Your task to perform on an android device: turn off notifications in google photos Image 0: 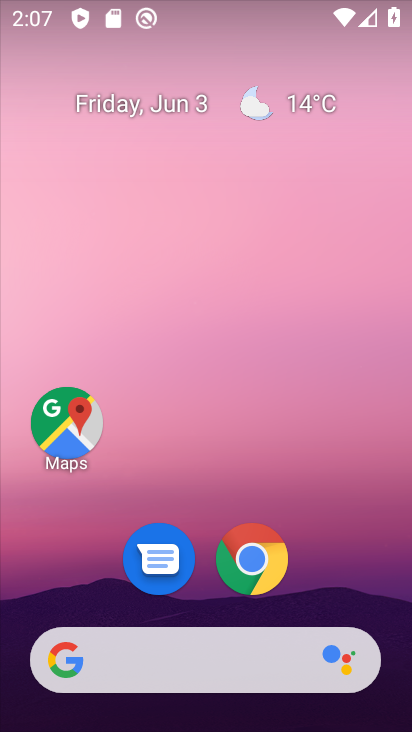
Step 0: drag from (221, 606) to (177, 175)
Your task to perform on an android device: turn off notifications in google photos Image 1: 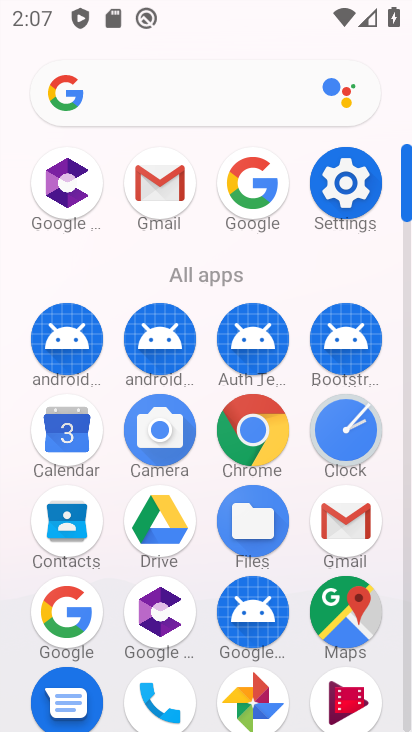
Step 1: click (238, 694)
Your task to perform on an android device: turn off notifications in google photos Image 2: 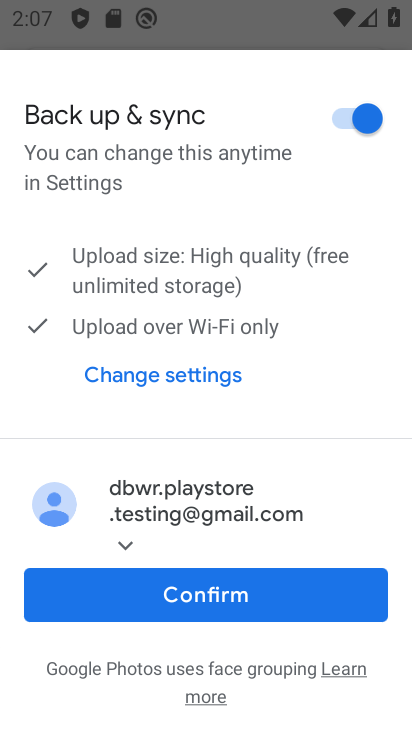
Step 2: click (59, 85)
Your task to perform on an android device: turn off notifications in google photos Image 3: 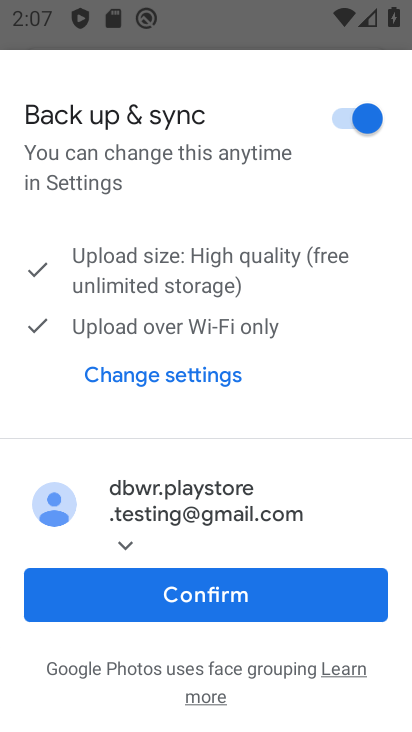
Step 3: click (192, 603)
Your task to perform on an android device: turn off notifications in google photos Image 4: 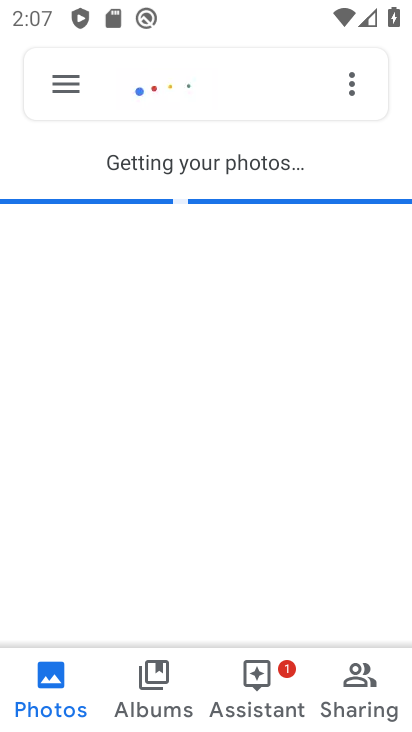
Step 4: click (64, 97)
Your task to perform on an android device: turn off notifications in google photos Image 5: 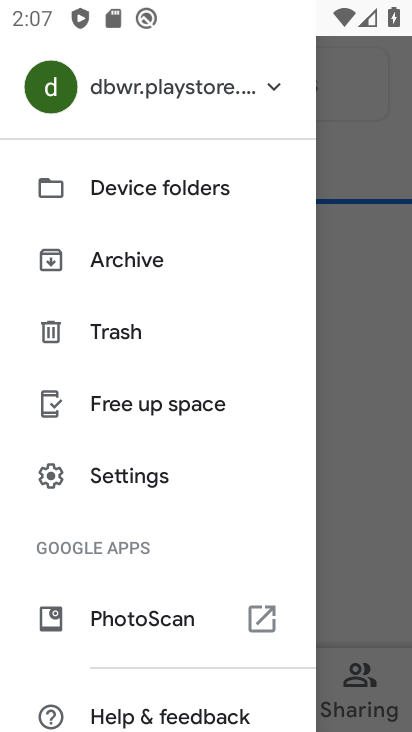
Step 5: click (79, 468)
Your task to perform on an android device: turn off notifications in google photos Image 6: 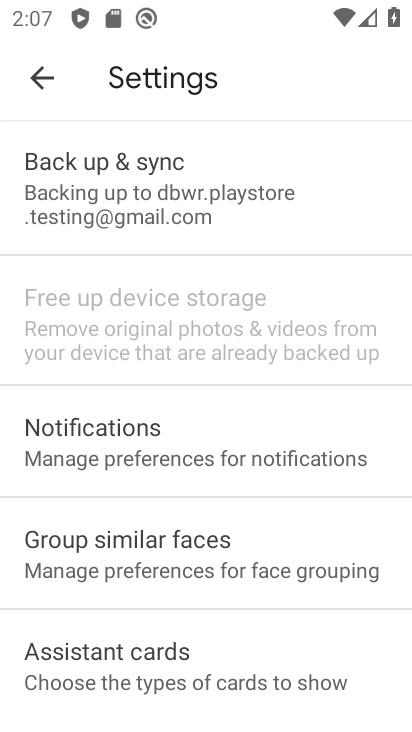
Step 6: click (86, 443)
Your task to perform on an android device: turn off notifications in google photos Image 7: 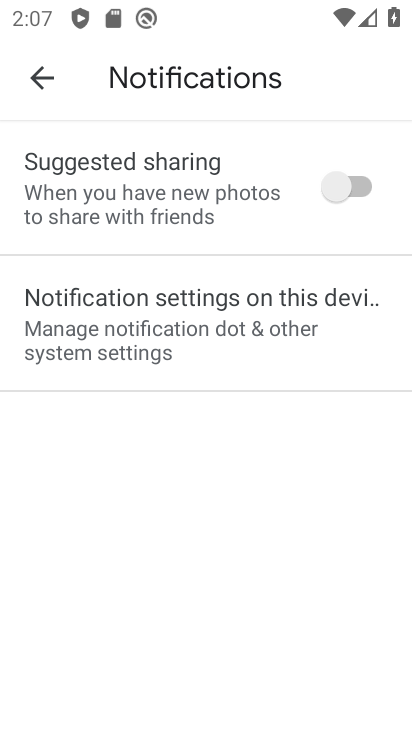
Step 7: click (194, 327)
Your task to perform on an android device: turn off notifications in google photos Image 8: 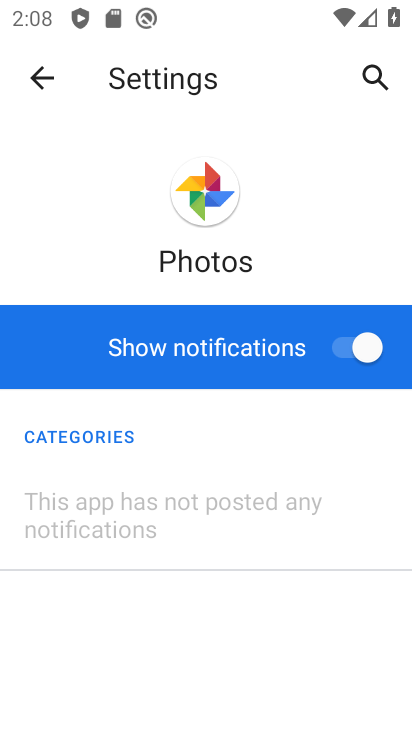
Step 8: click (338, 339)
Your task to perform on an android device: turn off notifications in google photos Image 9: 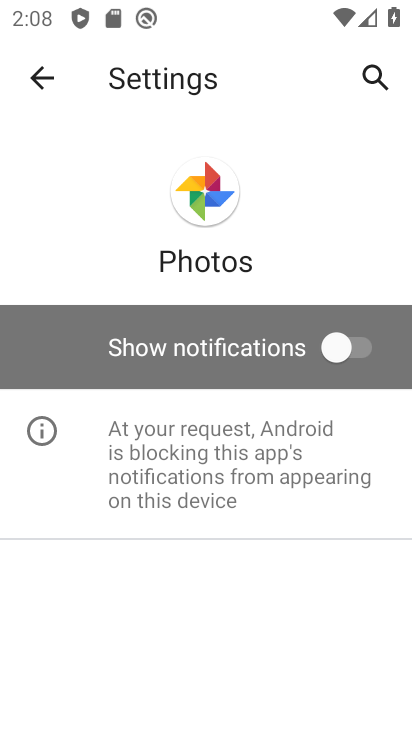
Step 9: task complete